Your task to perform on an android device: refresh tabs in the chrome app Image 0: 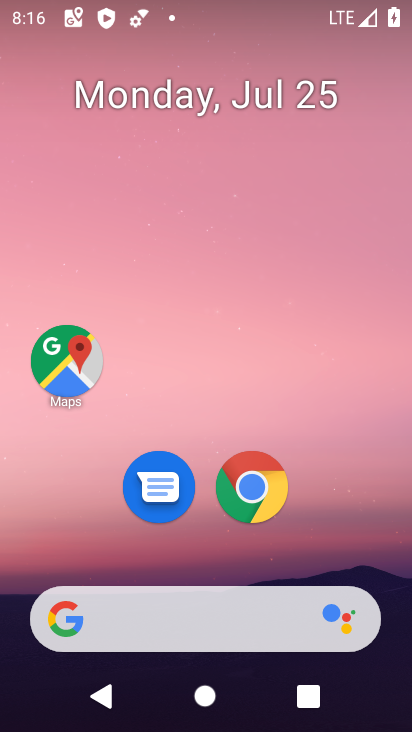
Step 0: click (245, 492)
Your task to perform on an android device: refresh tabs in the chrome app Image 1: 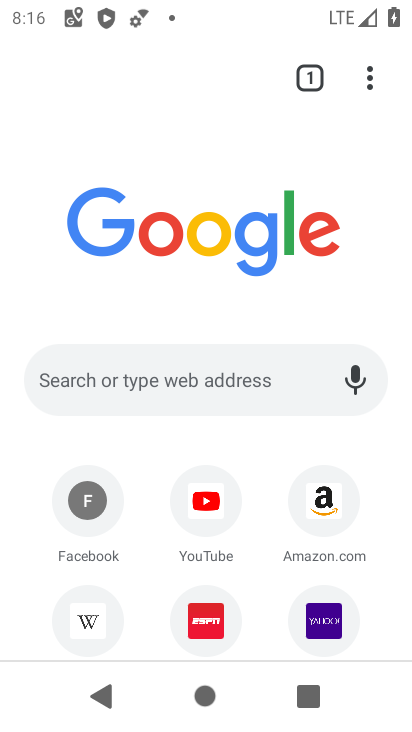
Step 1: click (378, 80)
Your task to perform on an android device: refresh tabs in the chrome app Image 2: 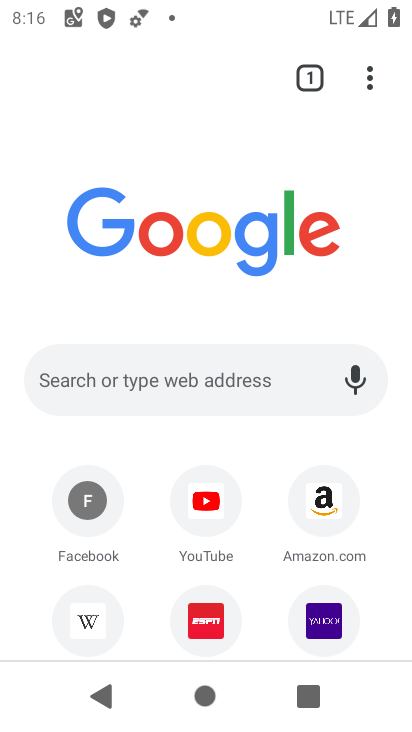
Step 2: task complete